Your task to perform on an android device: See recent photos Image 0: 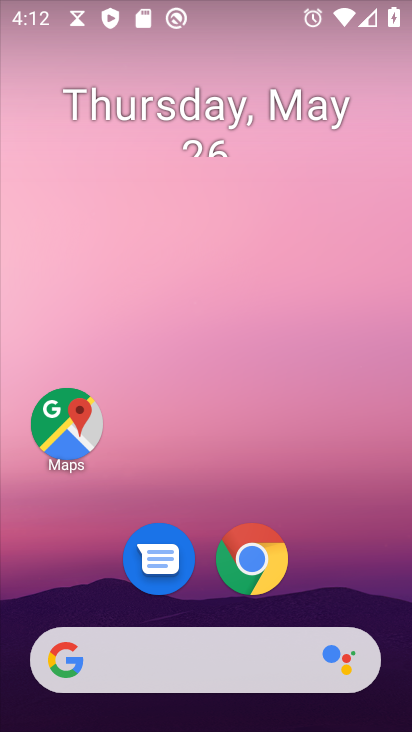
Step 0: drag from (334, 462) to (201, 31)
Your task to perform on an android device: See recent photos Image 1: 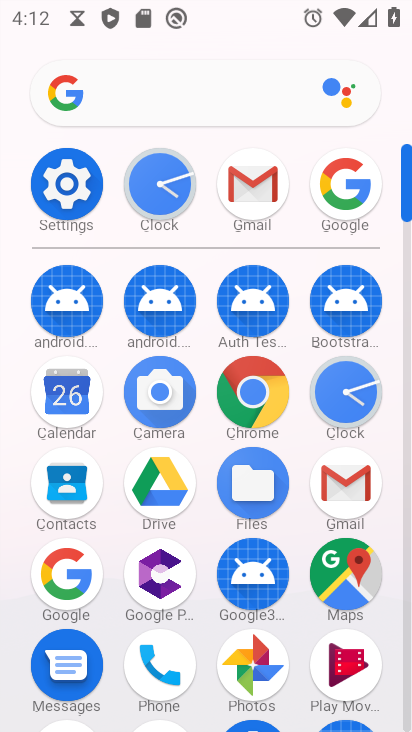
Step 1: click (260, 658)
Your task to perform on an android device: See recent photos Image 2: 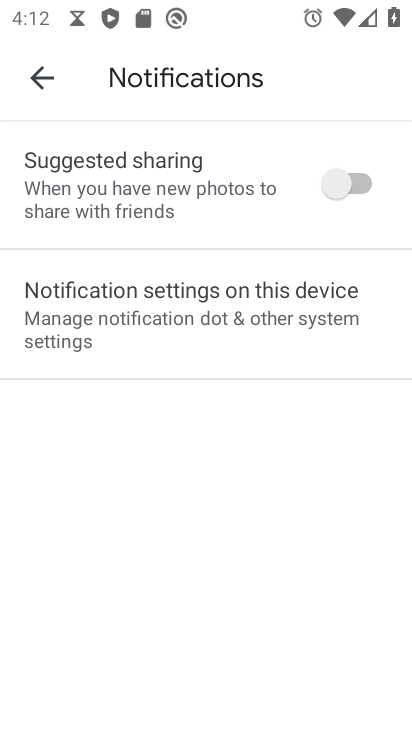
Step 2: click (48, 83)
Your task to perform on an android device: See recent photos Image 3: 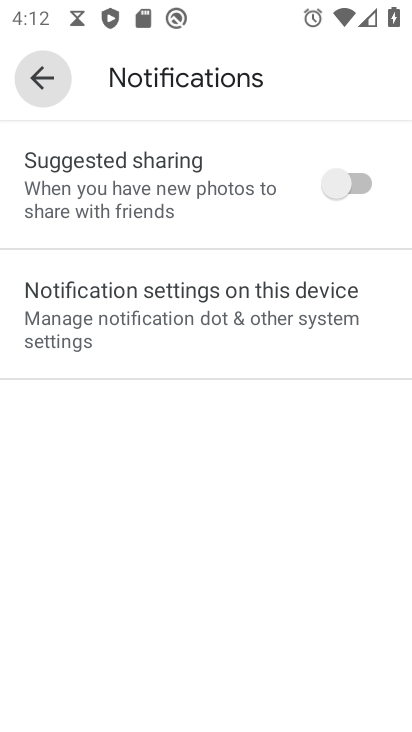
Step 3: click (44, 73)
Your task to perform on an android device: See recent photos Image 4: 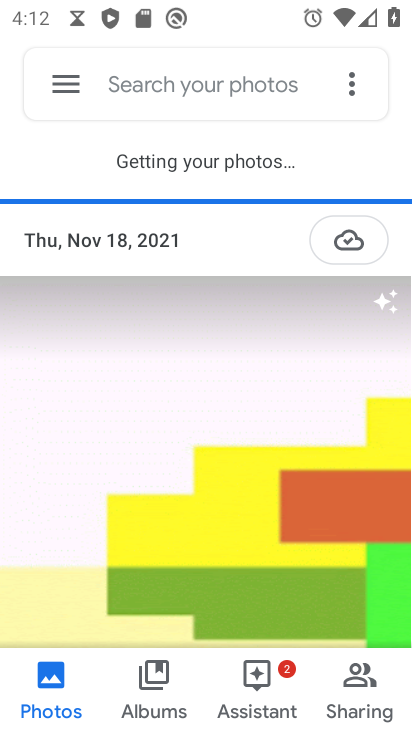
Step 4: click (48, 75)
Your task to perform on an android device: See recent photos Image 5: 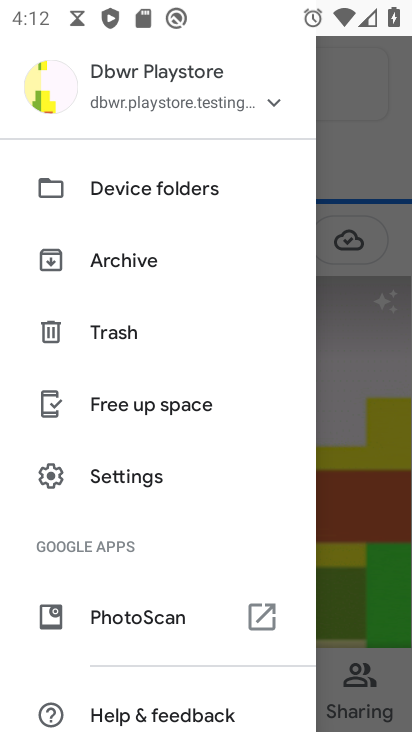
Step 5: click (404, 218)
Your task to perform on an android device: See recent photos Image 6: 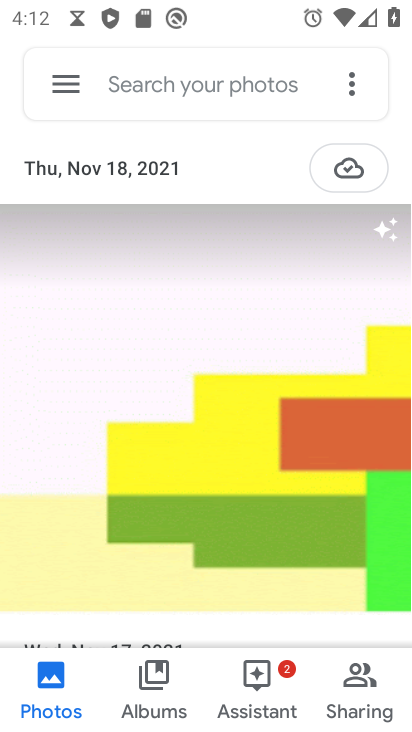
Step 6: click (66, 701)
Your task to perform on an android device: See recent photos Image 7: 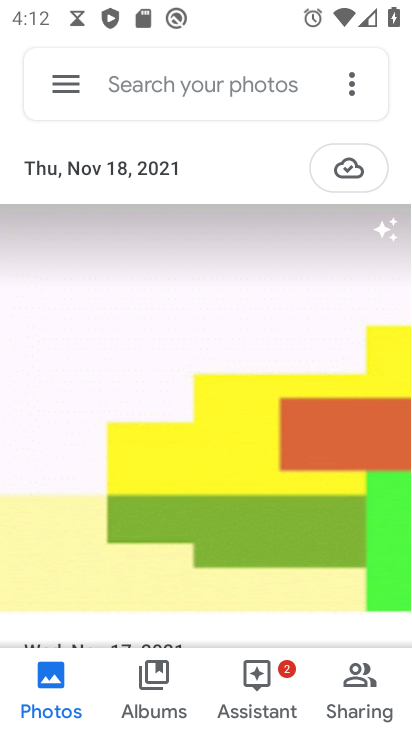
Step 7: task complete